Your task to perform on an android device: Open my contact list Image 0: 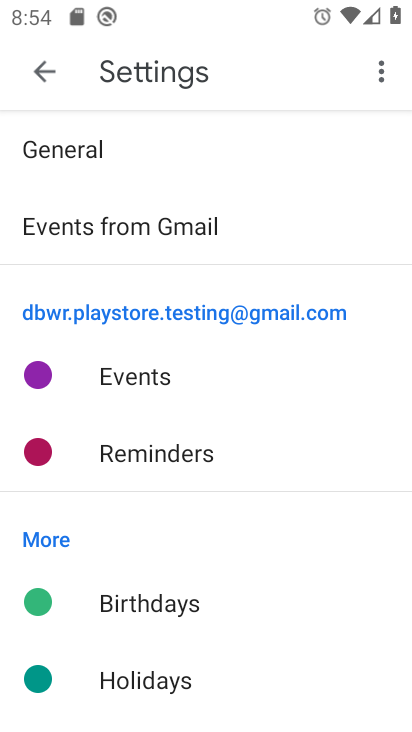
Step 0: press home button
Your task to perform on an android device: Open my contact list Image 1: 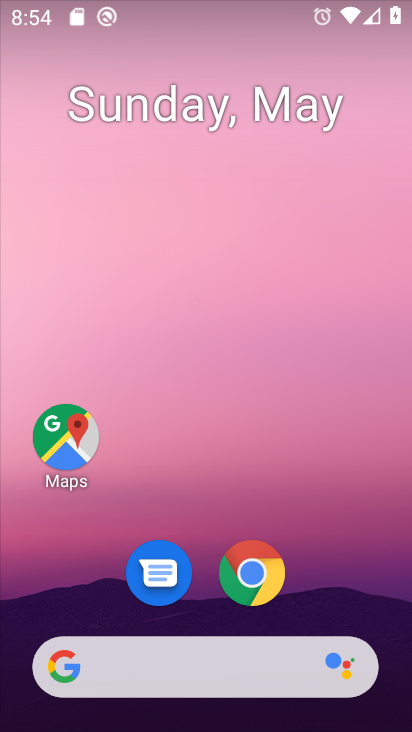
Step 1: drag from (209, 469) to (259, 8)
Your task to perform on an android device: Open my contact list Image 2: 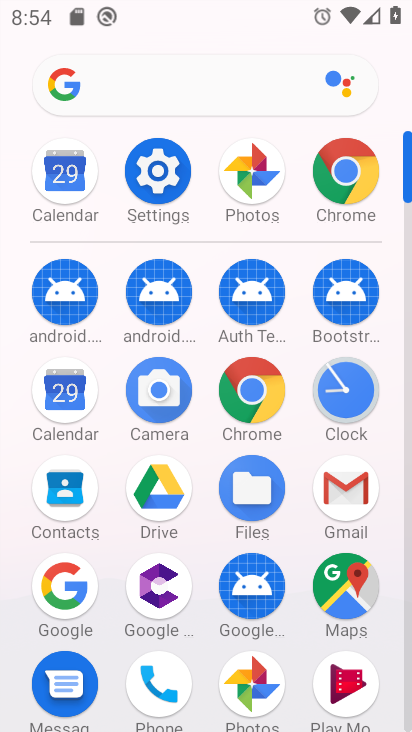
Step 2: click (76, 493)
Your task to perform on an android device: Open my contact list Image 3: 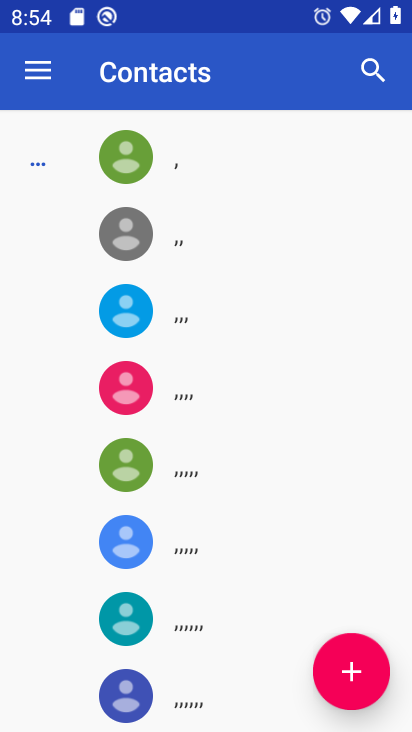
Step 3: task complete